Your task to perform on an android device: see sites visited before in the chrome app Image 0: 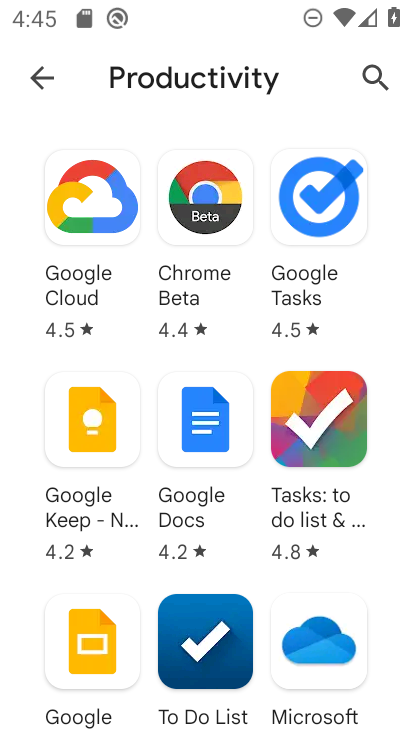
Step 0: press back button
Your task to perform on an android device: see sites visited before in the chrome app Image 1: 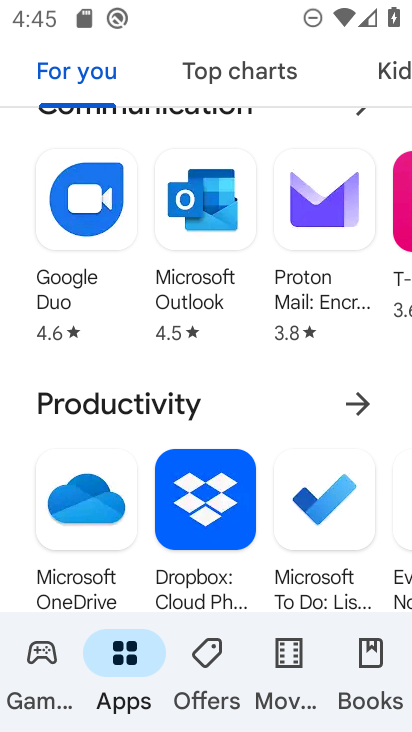
Step 1: press back button
Your task to perform on an android device: see sites visited before in the chrome app Image 2: 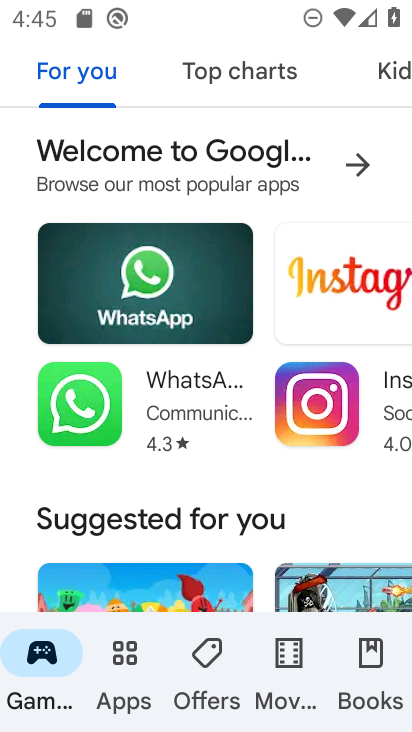
Step 2: press back button
Your task to perform on an android device: see sites visited before in the chrome app Image 3: 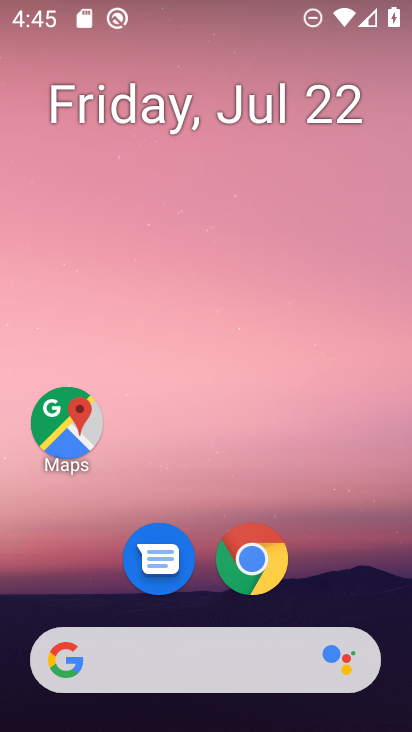
Step 3: click (260, 562)
Your task to perform on an android device: see sites visited before in the chrome app Image 4: 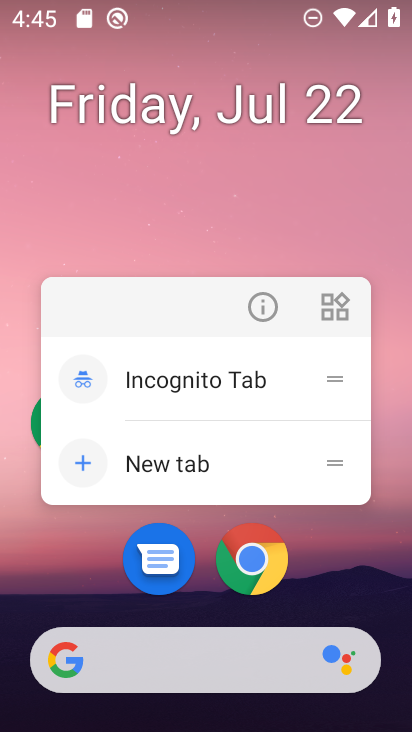
Step 4: click (258, 551)
Your task to perform on an android device: see sites visited before in the chrome app Image 5: 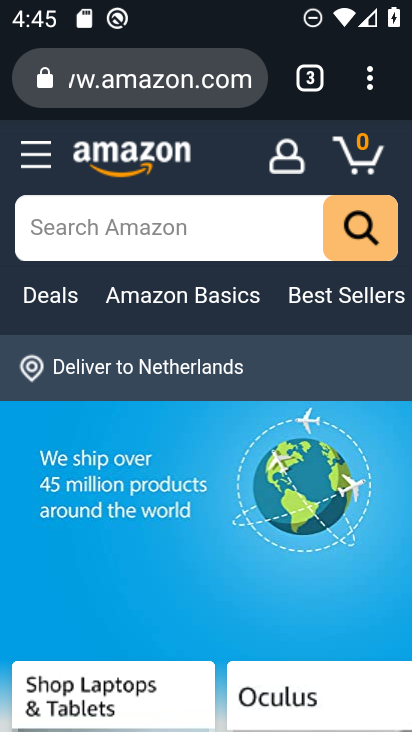
Step 5: task complete